Your task to perform on an android device: see creations saved in the google photos Image 0: 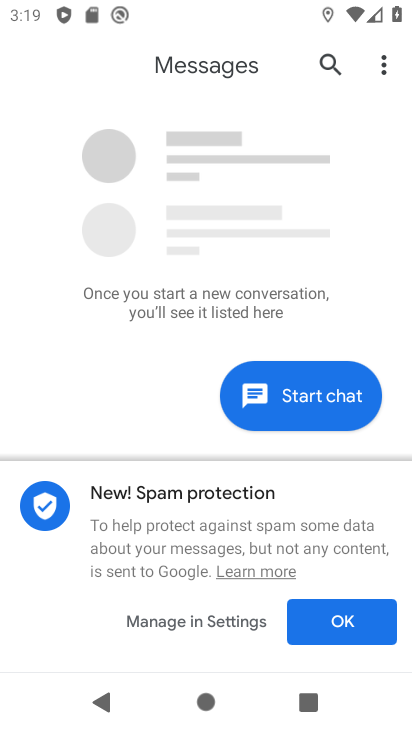
Step 0: press home button
Your task to perform on an android device: see creations saved in the google photos Image 1: 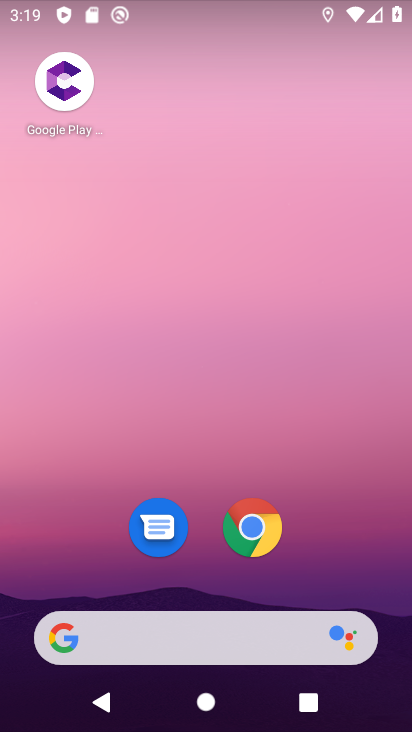
Step 1: drag from (234, 601) to (160, 3)
Your task to perform on an android device: see creations saved in the google photos Image 2: 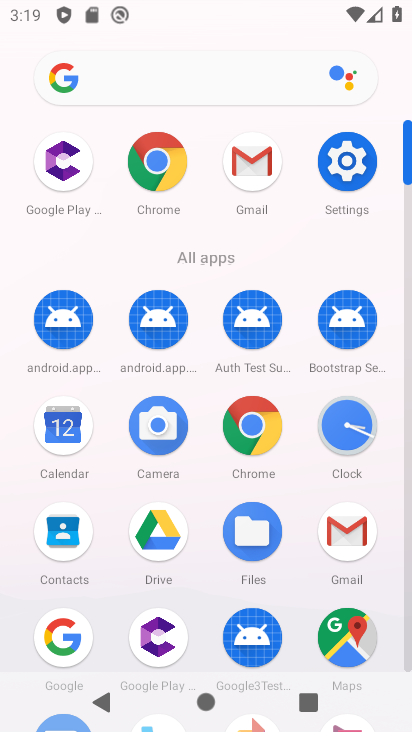
Step 2: drag from (122, 567) to (77, 126)
Your task to perform on an android device: see creations saved in the google photos Image 3: 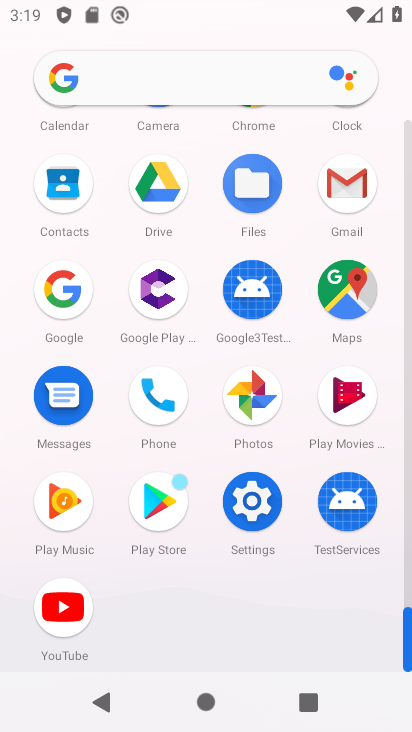
Step 3: click (250, 415)
Your task to perform on an android device: see creations saved in the google photos Image 4: 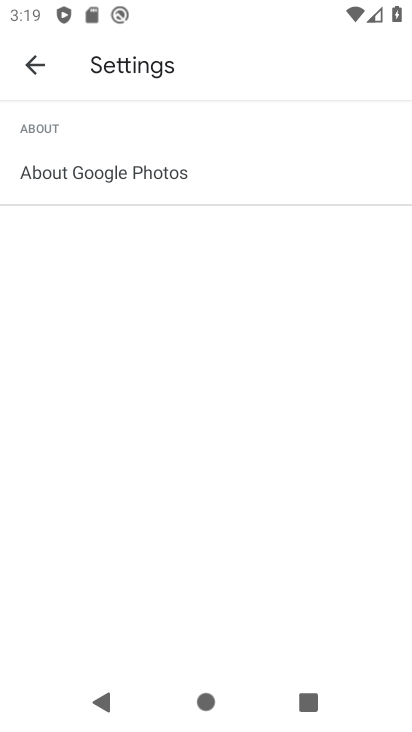
Step 4: click (33, 59)
Your task to perform on an android device: see creations saved in the google photos Image 5: 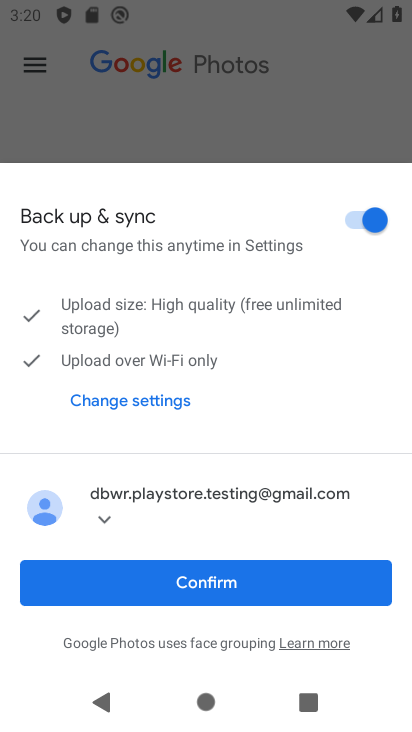
Step 5: click (246, 574)
Your task to perform on an android device: see creations saved in the google photos Image 6: 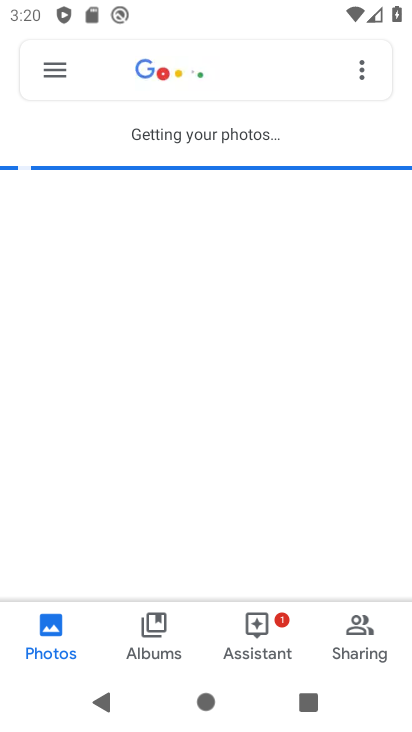
Step 6: click (160, 88)
Your task to perform on an android device: see creations saved in the google photos Image 7: 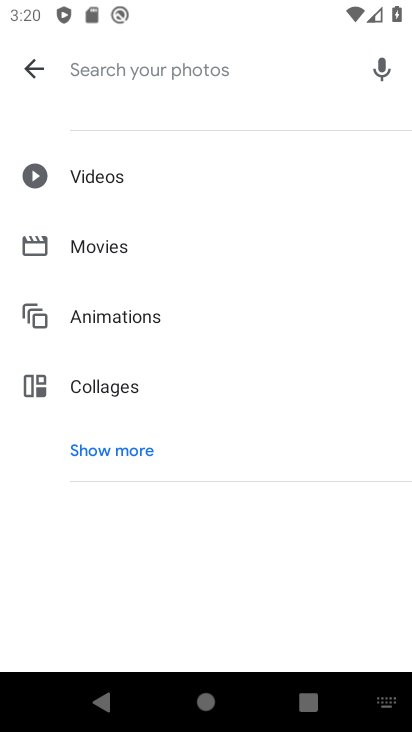
Step 7: click (101, 451)
Your task to perform on an android device: see creations saved in the google photos Image 8: 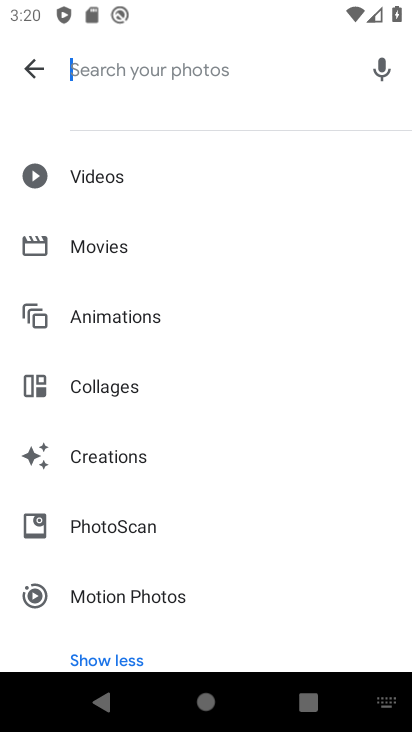
Step 8: click (110, 459)
Your task to perform on an android device: see creations saved in the google photos Image 9: 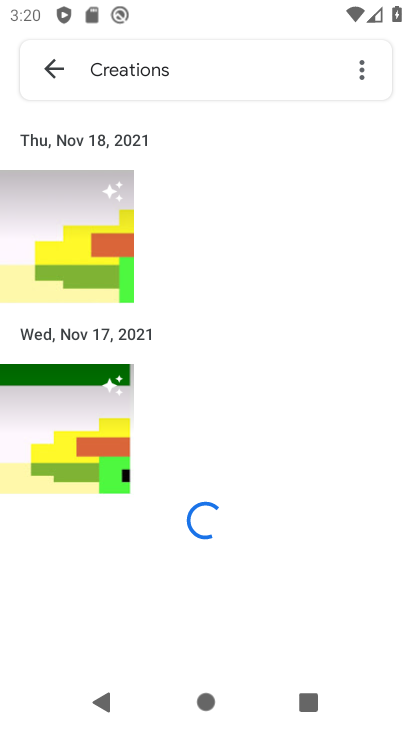
Step 9: task complete